Your task to perform on an android device: Open Reddit.com Image 0: 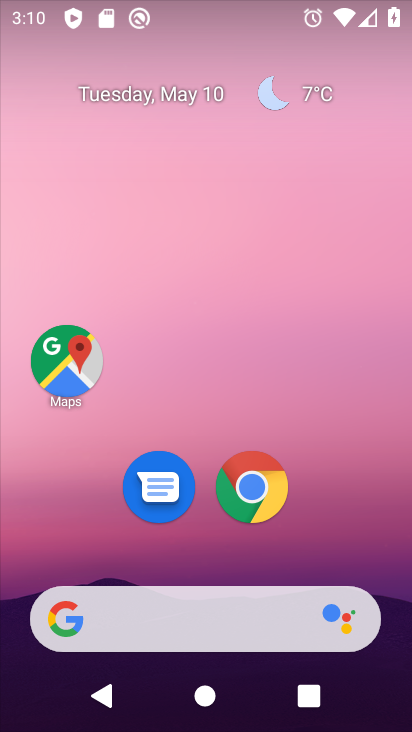
Step 0: click (240, 474)
Your task to perform on an android device: Open Reddit.com Image 1: 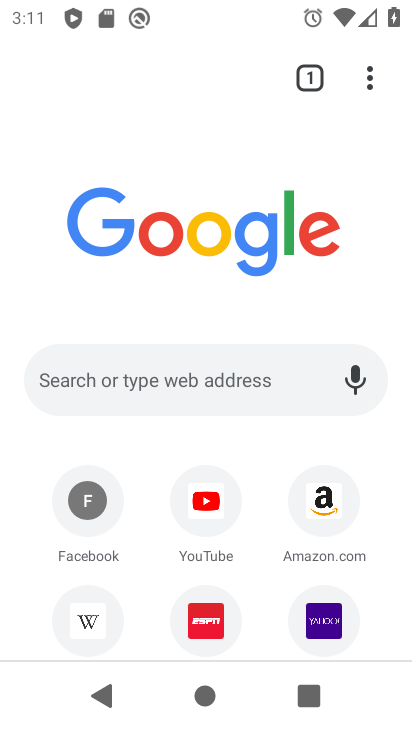
Step 1: click (225, 357)
Your task to perform on an android device: Open Reddit.com Image 2: 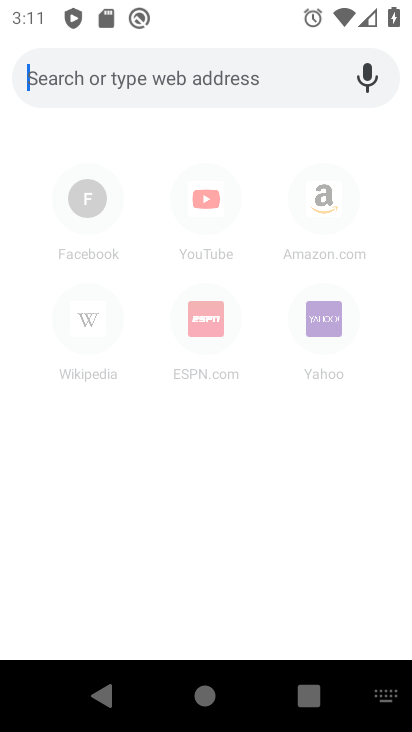
Step 2: type "reddit.com"
Your task to perform on an android device: Open Reddit.com Image 3: 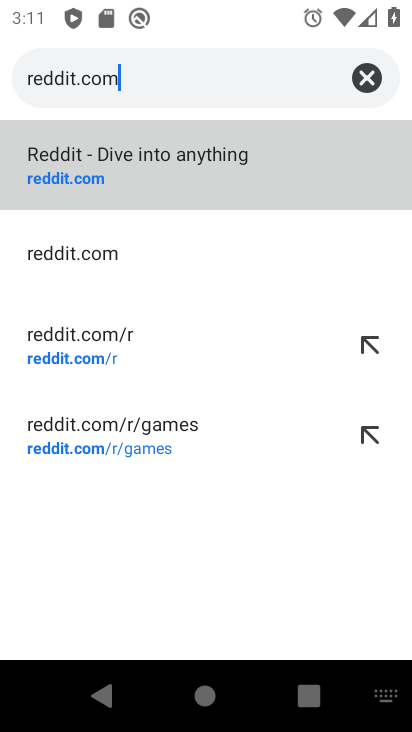
Step 3: click (87, 173)
Your task to perform on an android device: Open Reddit.com Image 4: 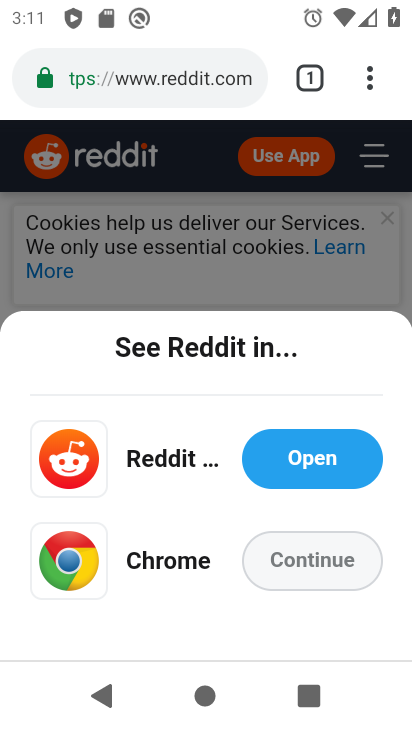
Step 4: task complete